Your task to perform on an android device: Open the Play Movies app and select the watchlist tab. Image 0: 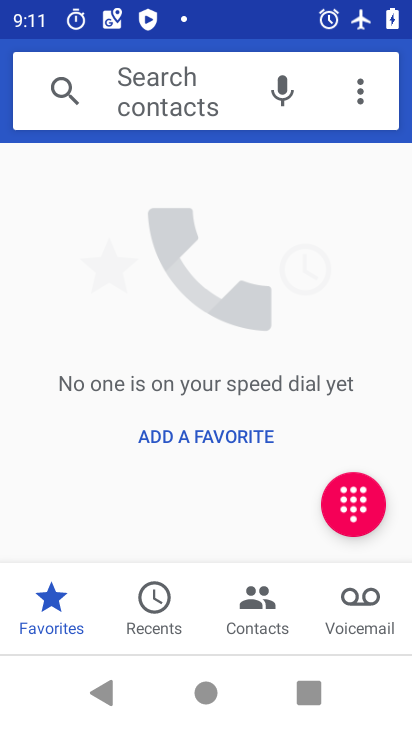
Step 0: press home button
Your task to perform on an android device: Open the Play Movies app and select the watchlist tab. Image 1: 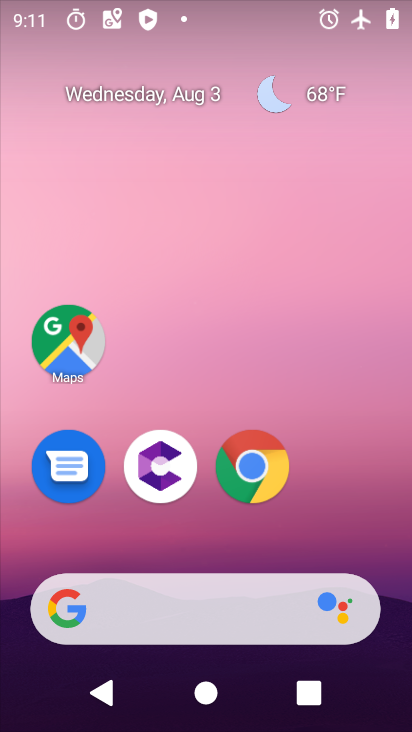
Step 1: drag from (355, 500) to (279, 86)
Your task to perform on an android device: Open the Play Movies app and select the watchlist tab. Image 2: 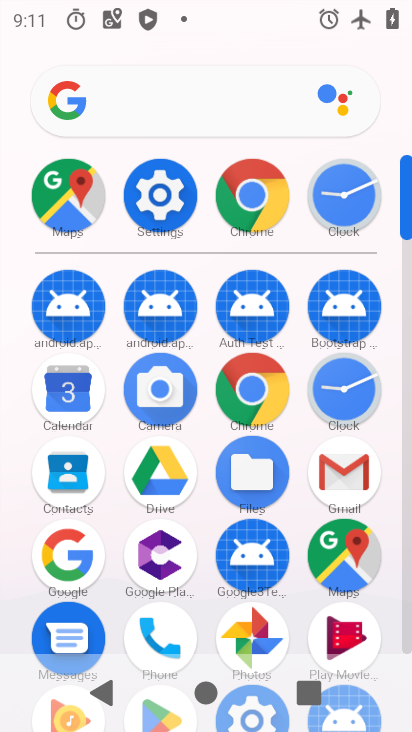
Step 2: click (341, 635)
Your task to perform on an android device: Open the Play Movies app and select the watchlist tab. Image 3: 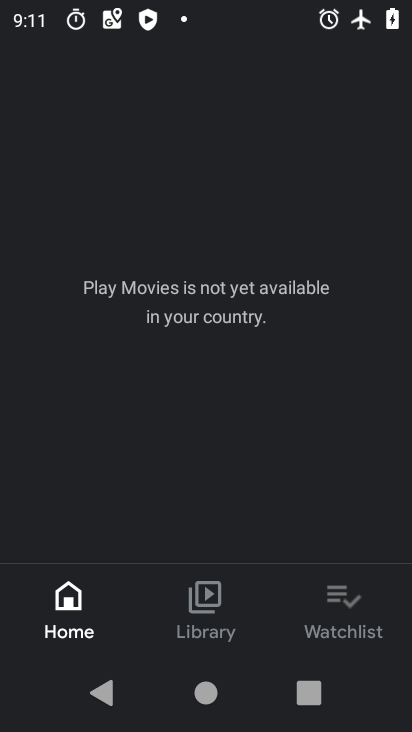
Step 3: click (349, 594)
Your task to perform on an android device: Open the Play Movies app and select the watchlist tab. Image 4: 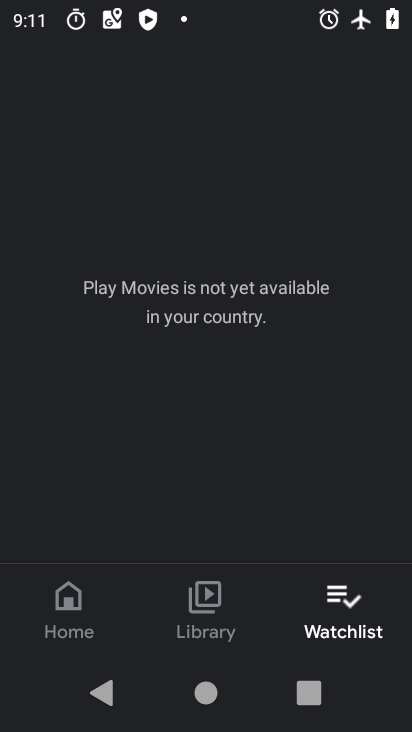
Step 4: task complete